Your task to perform on an android device: Open Google Chrome Image 0: 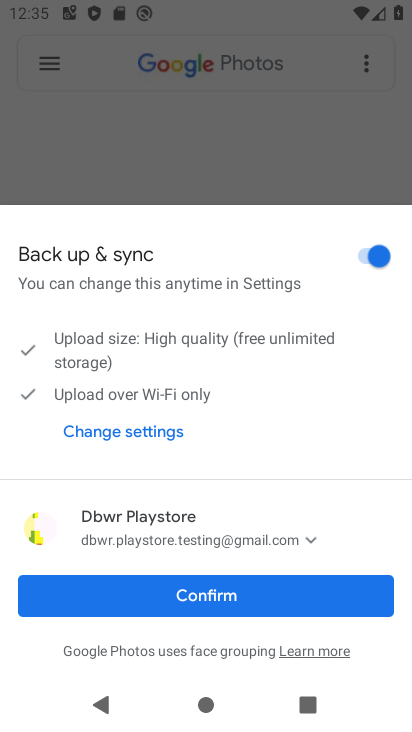
Step 0: press home button
Your task to perform on an android device: Open Google Chrome Image 1: 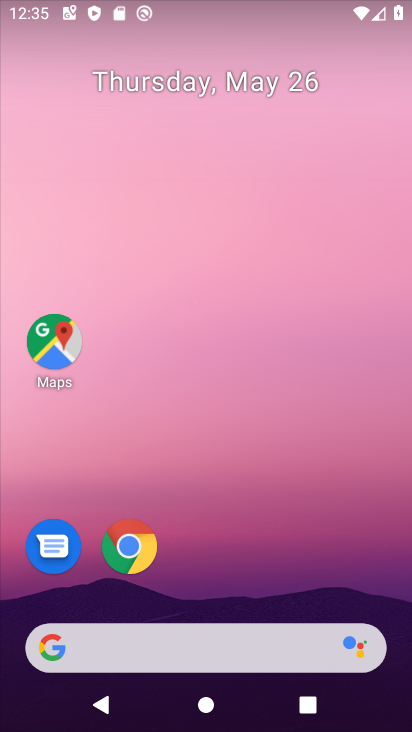
Step 1: click (114, 550)
Your task to perform on an android device: Open Google Chrome Image 2: 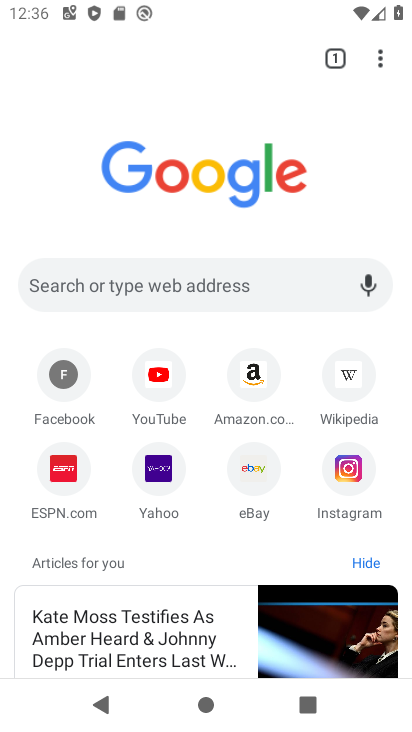
Step 2: task complete